Your task to perform on an android device: turn off translation in the chrome app Image 0: 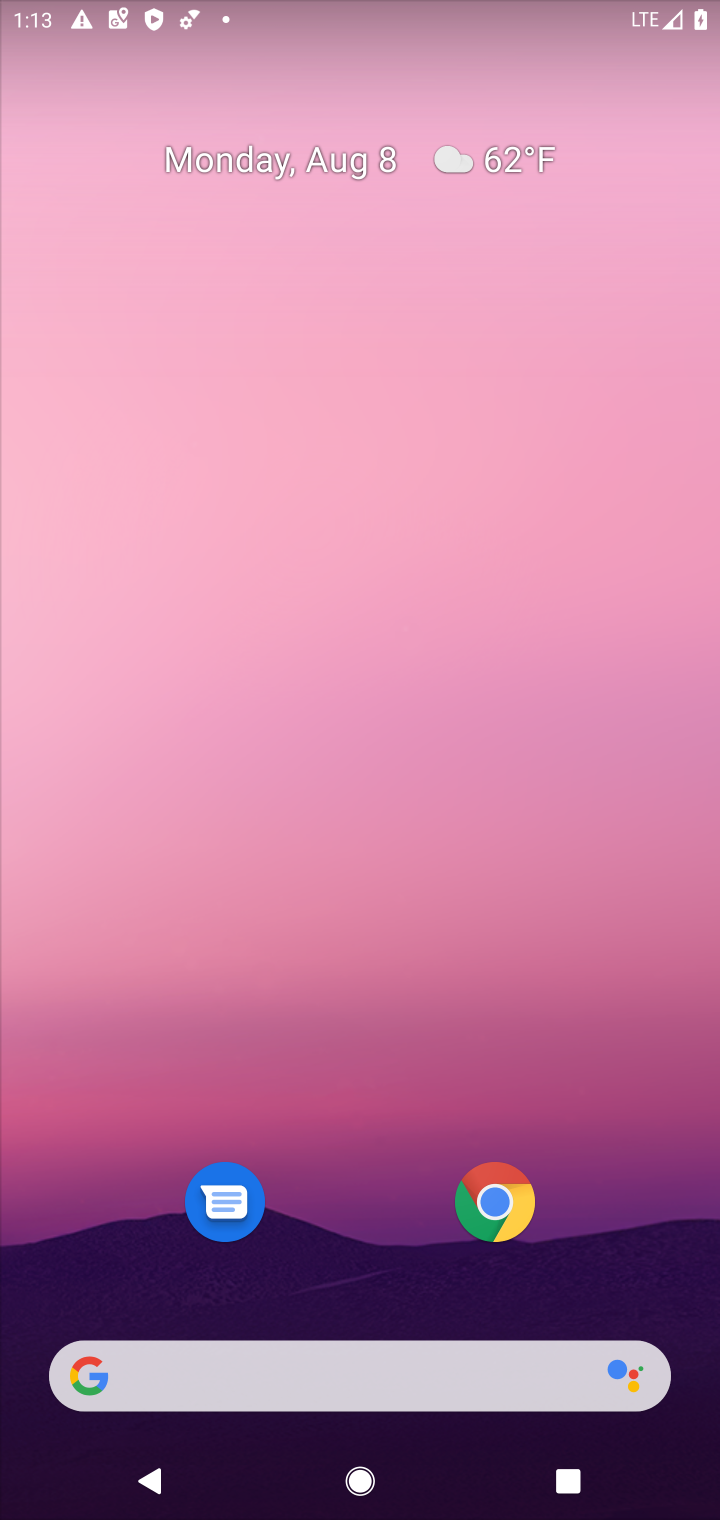
Step 0: click (491, 1222)
Your task to perform on an android device: turn off translation in the chrome app Image 1: 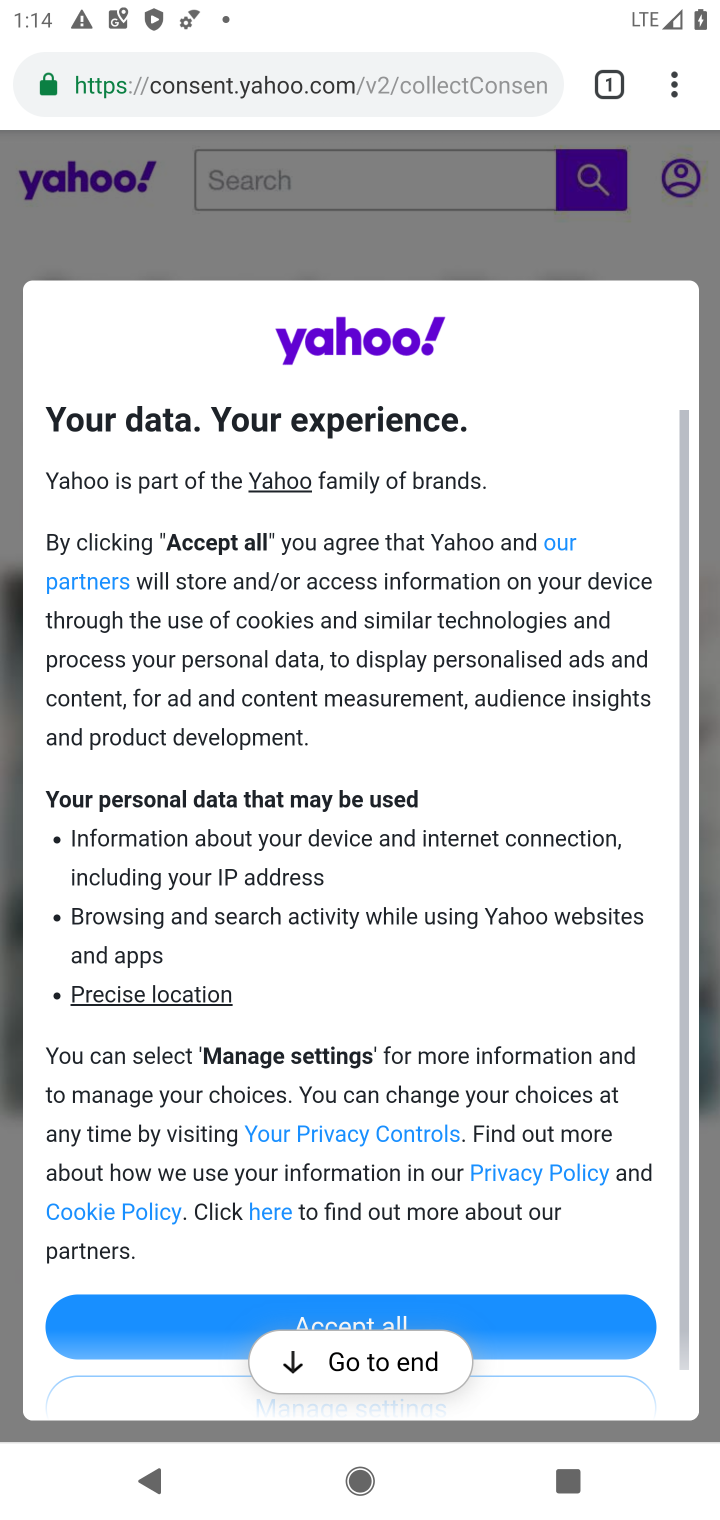
Step 1: click (679, 82)
Your task to perform on an android device: turn off translation in the chrome app Image 2: 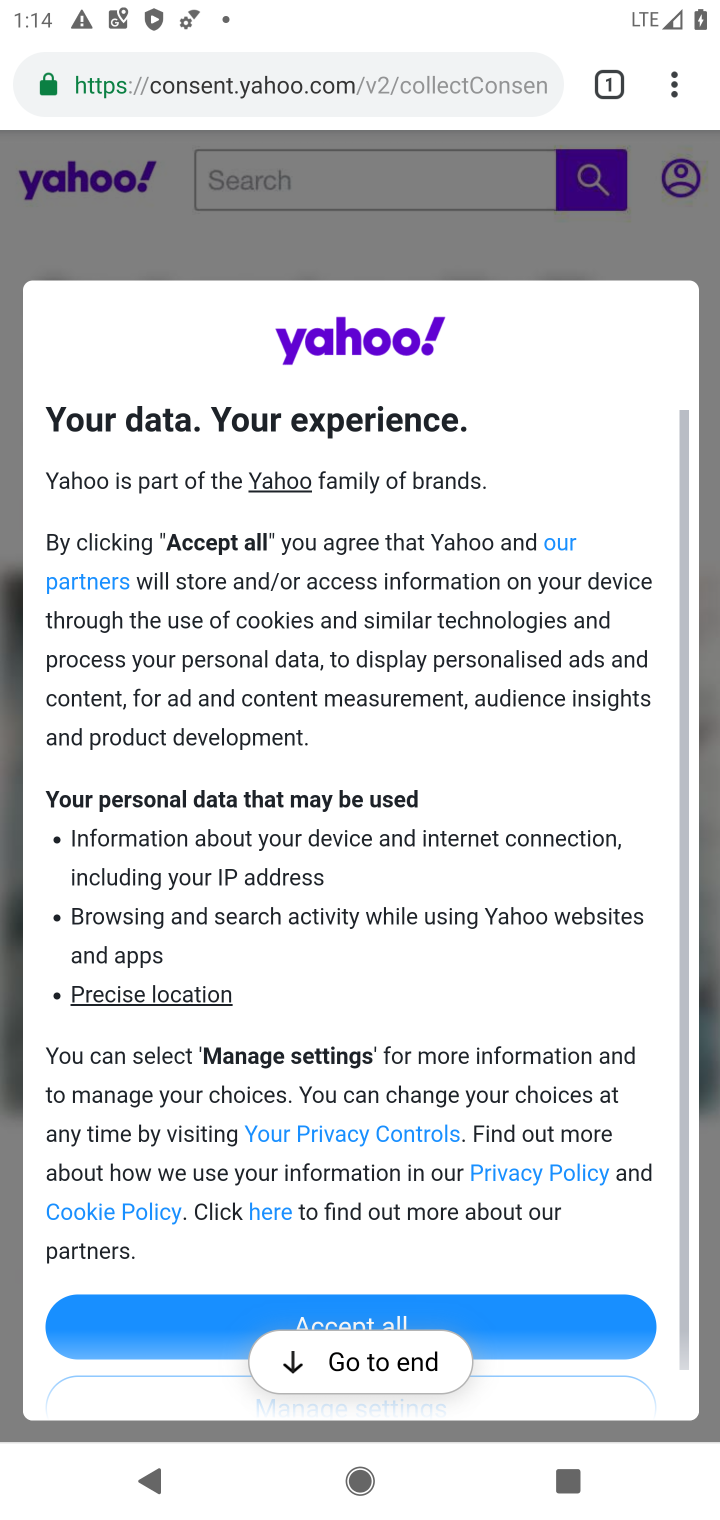
Step 2: click (675, 93)
Your task to perform on an android device: turn off translation in the chrome app Image 3: 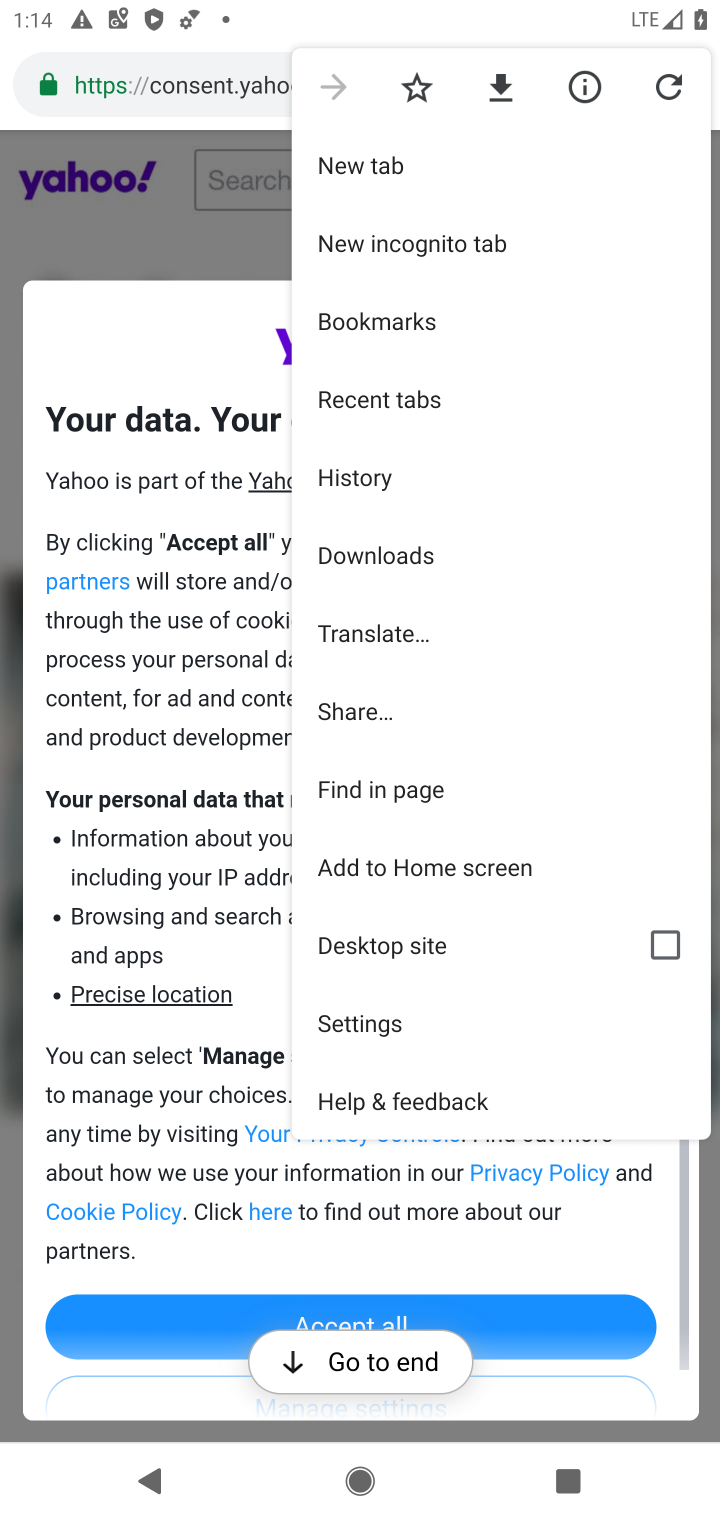
Step 3: click (354, 1035)
Your task to perform on an android device: turn off translation in the chrome app Image 4: 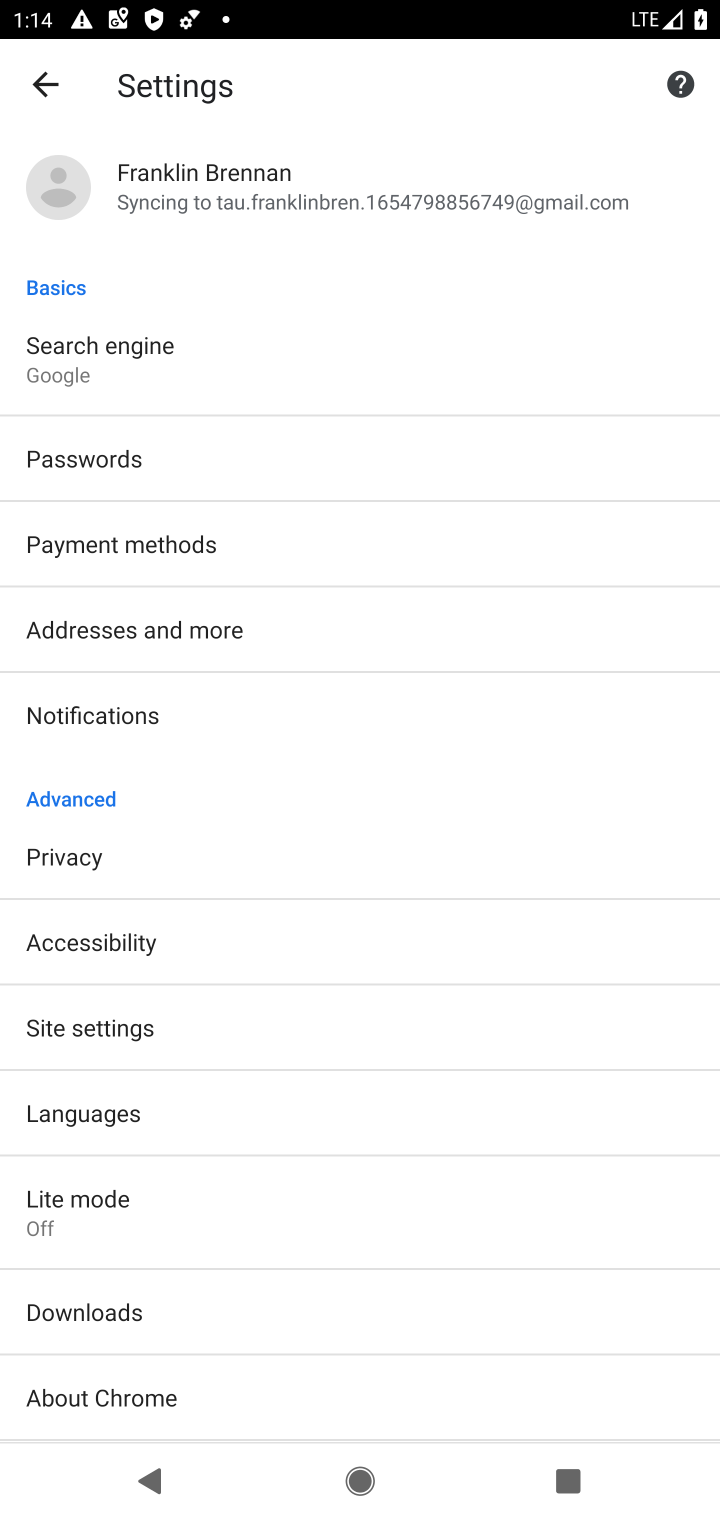
Step 4: click (112, 1112)
Your task to perform on an android device: turn off translation in the chrome app Image 5: 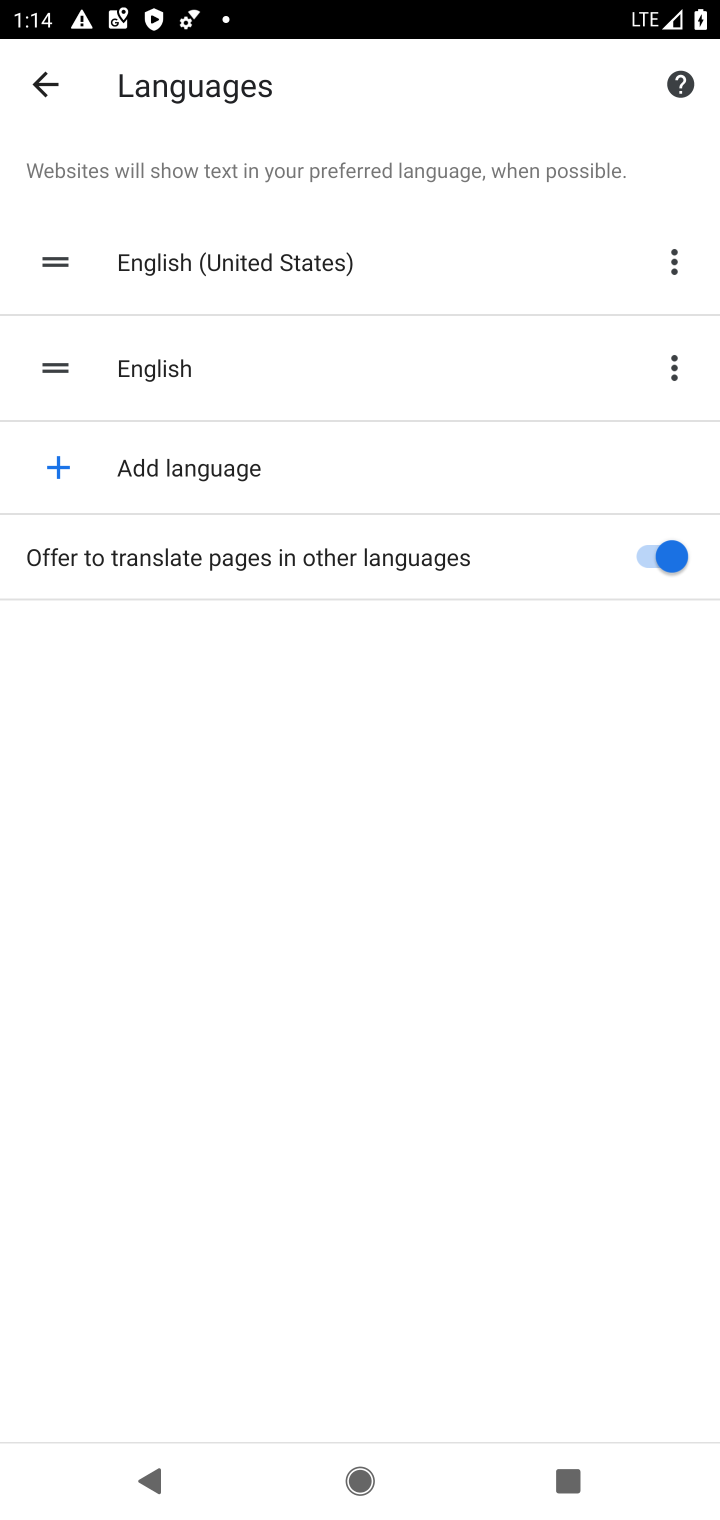
Step 5: click (655, 542)
Your task to perform on an android device: turn off translation in the chrome app Image 6: 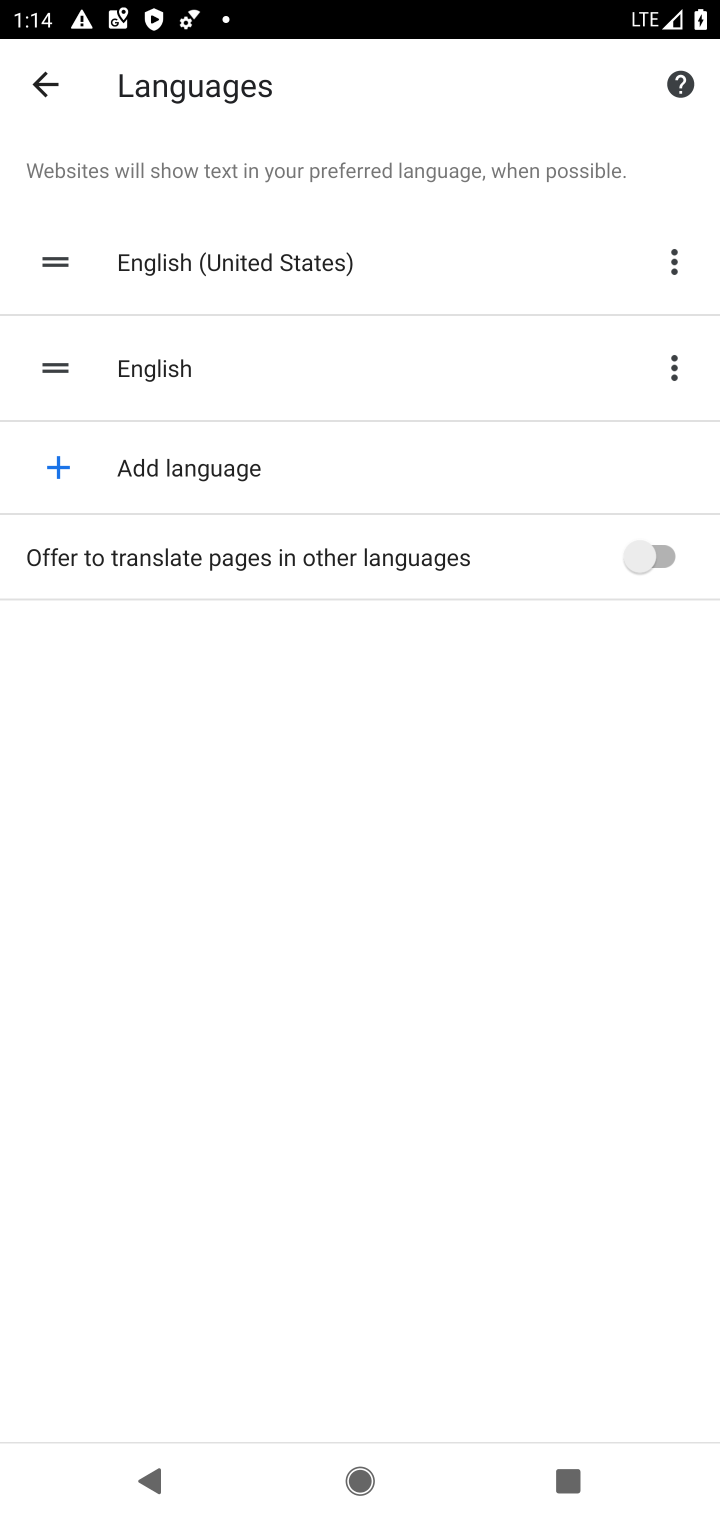
Step 6: task complete